Your task to perform on an android device: turn off smart reply in the gmail app Image 0: 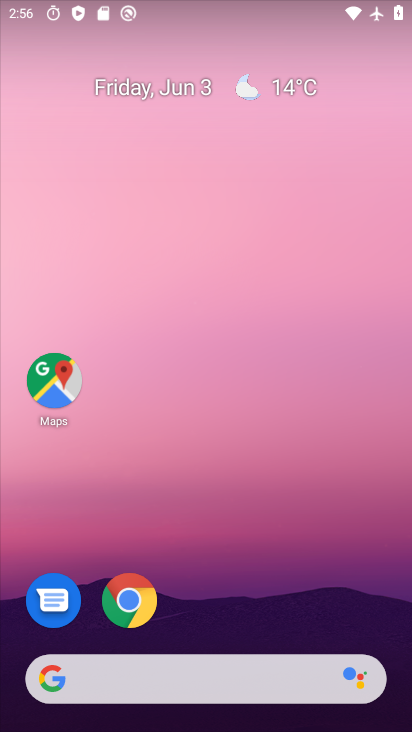
Step 0: drag from (316, 528) to (185, 13)
Your task to perform on an android device: turn off smart reply in the gmail app Image 1: 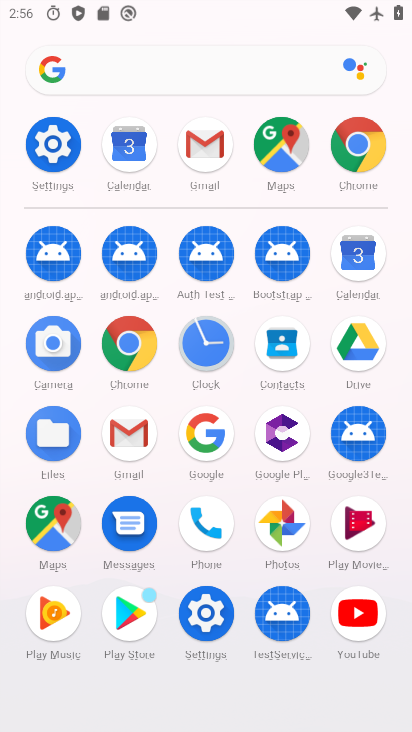
Step 1: click (127, 431)
Your task to perform on an android device: turn off smart reply in the gmail app Image 2: 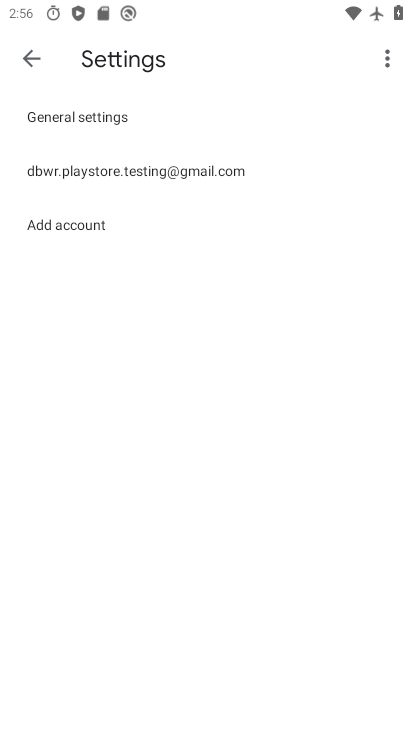
Step 2: click (30, 56)
Your task to perform on an android device: turn off smart reply in the gmail app Image 3: 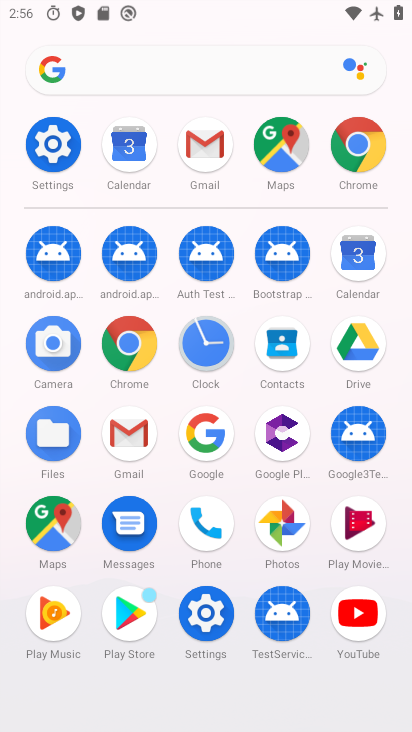
Step 3: click (128, 430)
Your task to perform on an android device: turn off smart reply in the gmail app Image 4: 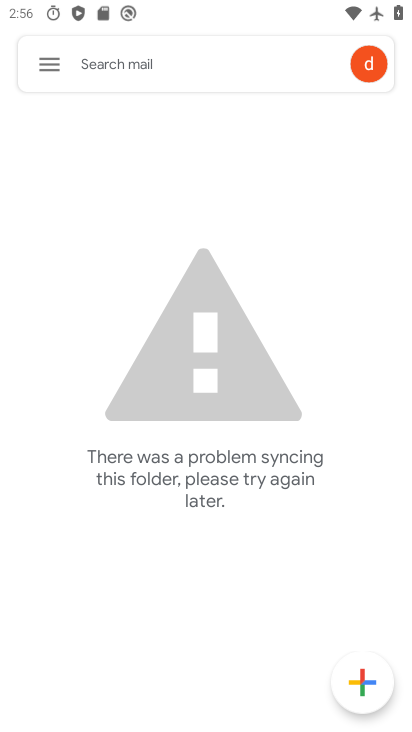
Step 4: click (43, 52)
Your task to perform on an android device: turn off smart reply in the gmail app Image 5: 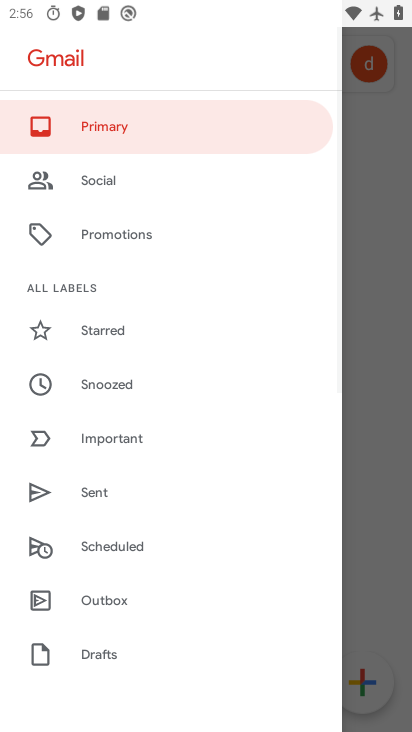
Step 5: drag from (209, 616) to (220, 182)
Your task to perform on an android device: turn off smart reply in the gmail app Image 6: 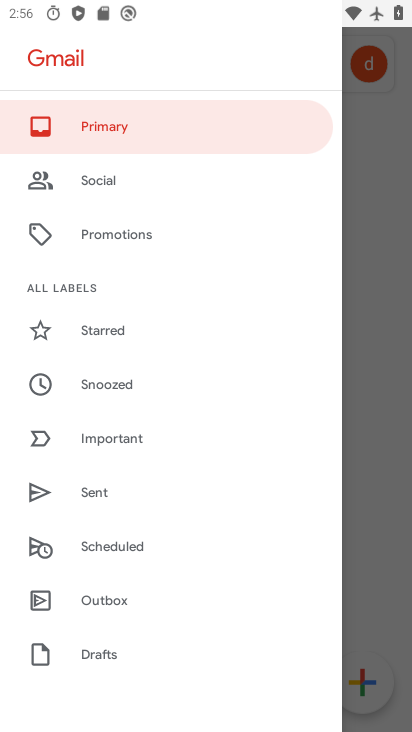
Step 6: drag from (144, 615) to (149, 282)
Your task to perform on an android device: turn off smart reply in the gmail app Image 7: 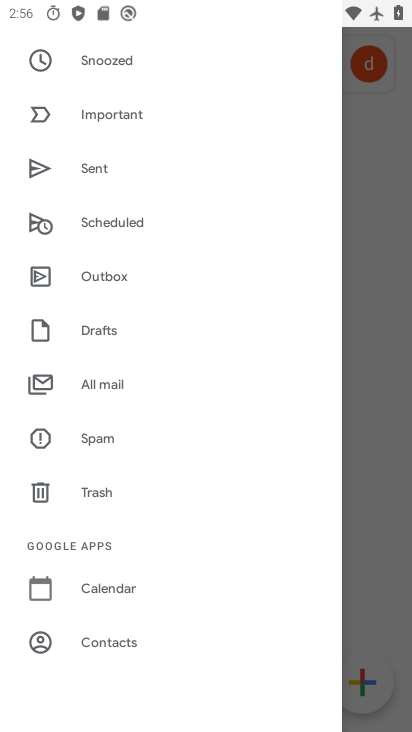
Step 7: click (147, 234)
Your task to perform on an android device: turn off smart reply in the gmail app Image 8: 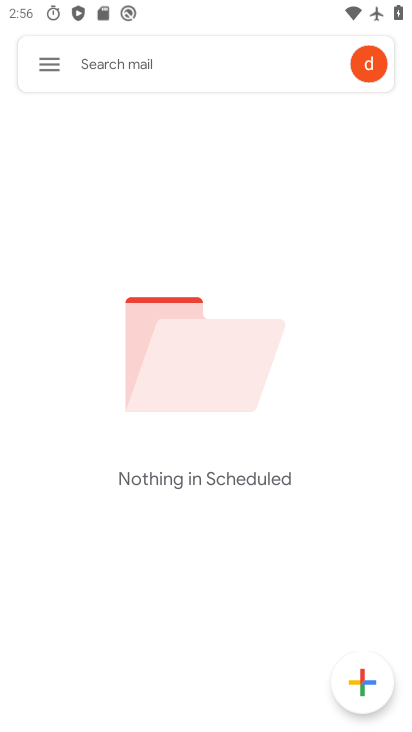
Step 8: click (35, 58)
Your task to perform on an android device: turn off smart reply in the gmail app Image 9: 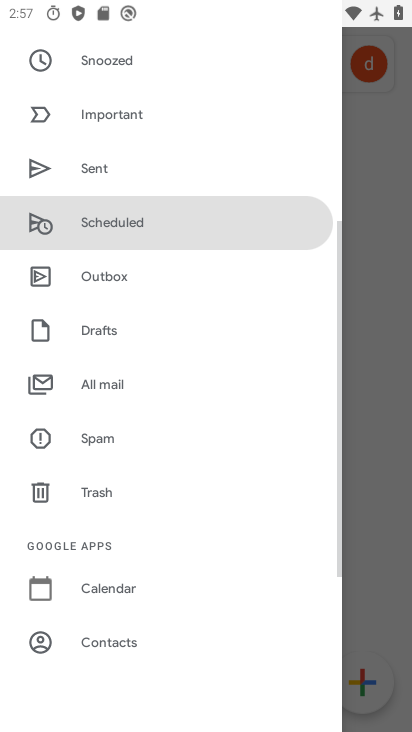
Step 9: drag from (209, 568) to (215, 109)
Your task to perform on an android device: turn off smart reply in the gmail app Image 10: 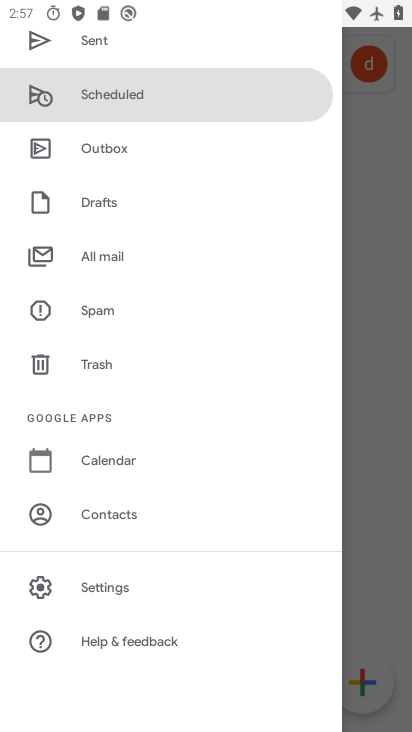
Step 10: click (115, 588)
Your task to perform on an android device: turn off smart reply in the gmail app Image 11: 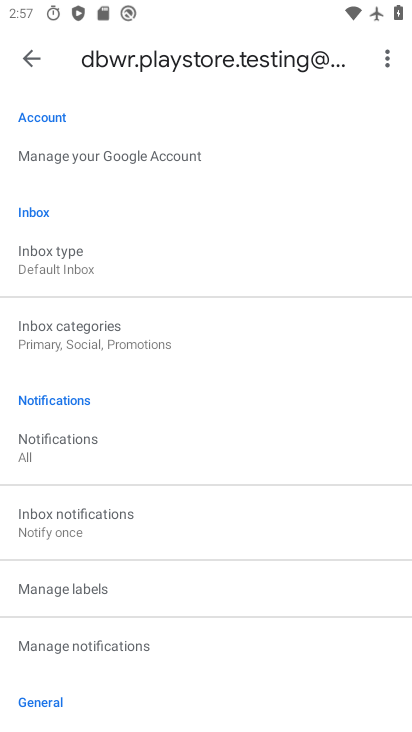
Step 11: drag from (259, 429) to (251, 151)
Your task to perform on an android device: turn off smart reply in the gmail app Image 12: 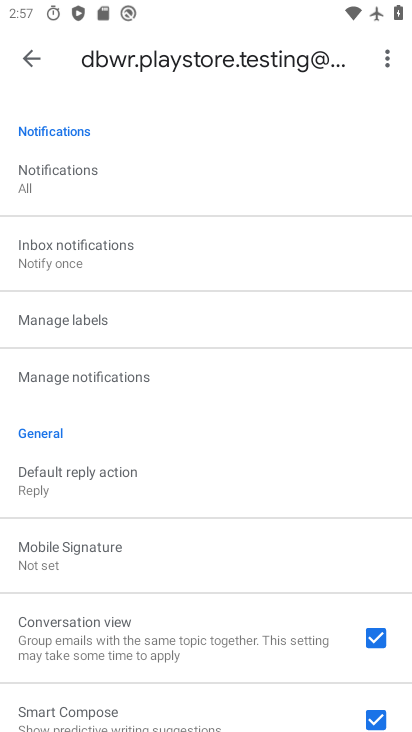
Step 12: drag from (234, 666) to (246, 195)
Your task to perform on an android device: turn off smart reply in the gmail app Image 13: 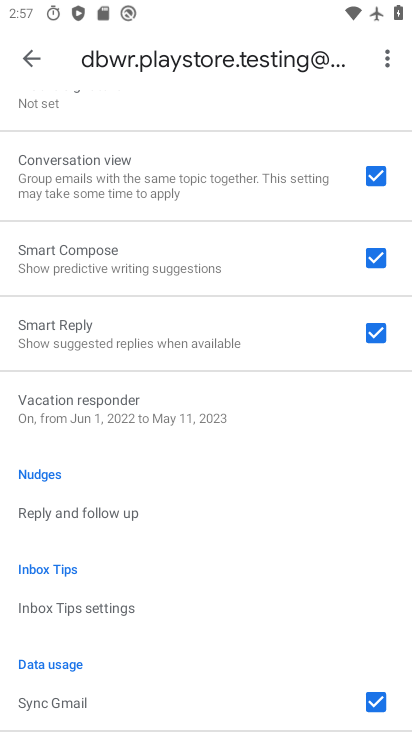
Step 13: click (373, 333)
Your task to perform on an android device: turn off smart reply in the gmail app Image 14: 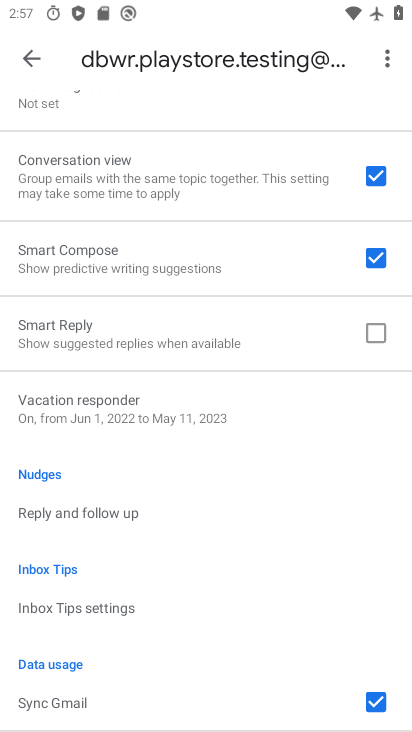
Step 14: task complete